Your task to perform on an android device: see tabs open on other devices in the chrome app Image 0: 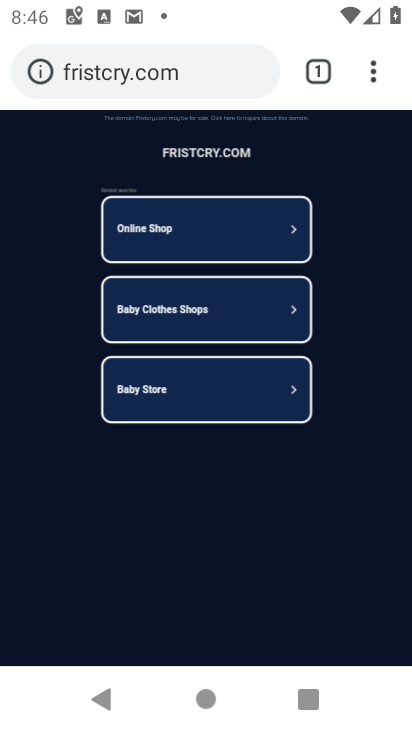
Step 0: click (382, 71)
Your task to perform on an android device: see tabs open on other devices in the chrome app Image 1: 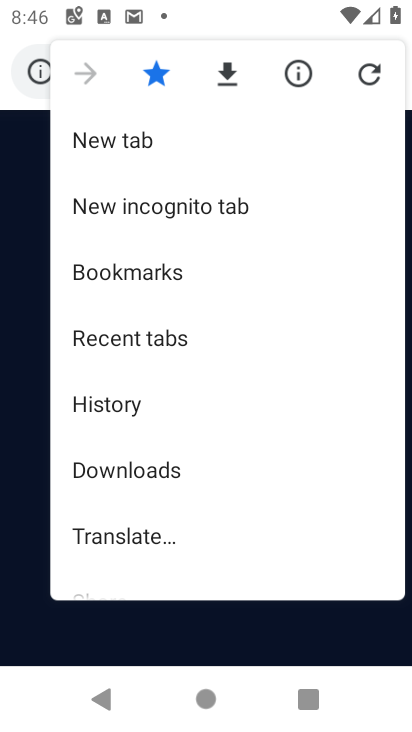
Step 1: click (133, 342)
Your task to perform on an android device: see tabs open on other devices in the chrome app Image 2: 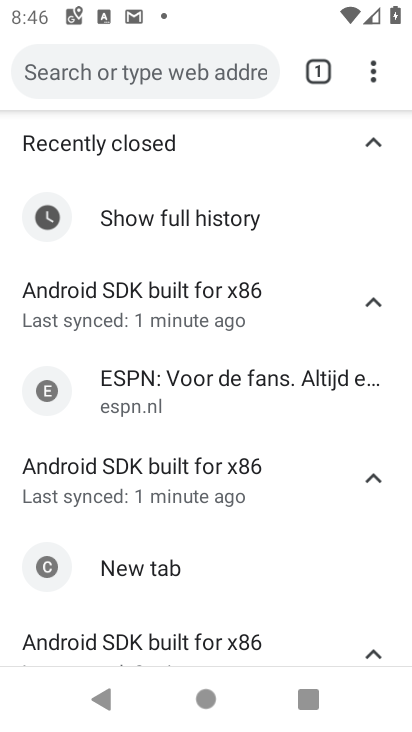
Step 2: task complete